Your task to perform on an android device: stop showing notifications on the lock screen Image 0: 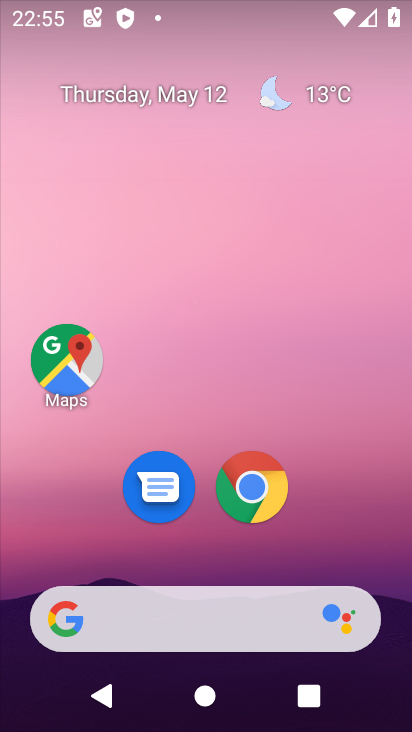
Step 0: drag from (202, 526) to (189, 23)
Your task to perform on an android device: stop showing notifications on the lock screen Image 1: 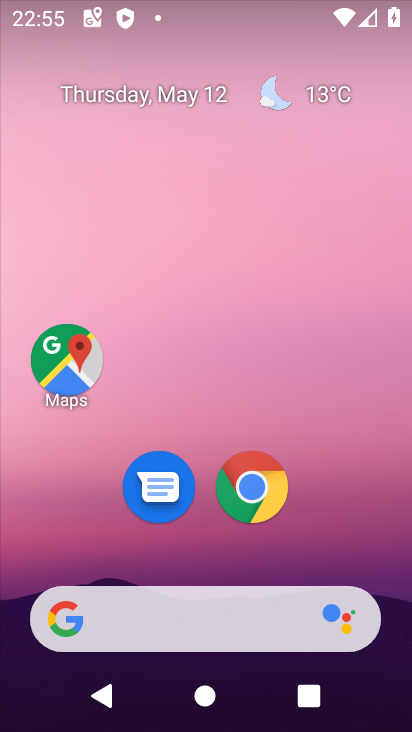
Step 1: drag from (210, 551) to (281, 27)
Your task to perform on an android device: stop showing notifications on the lock screen Image 2: 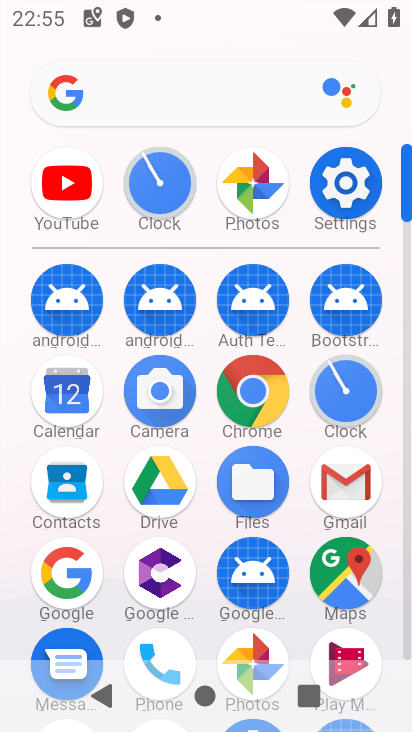
Step 2: click (332, 199)
Your task to perform on an android device: stop showing notifications on the lock screen Image 3: 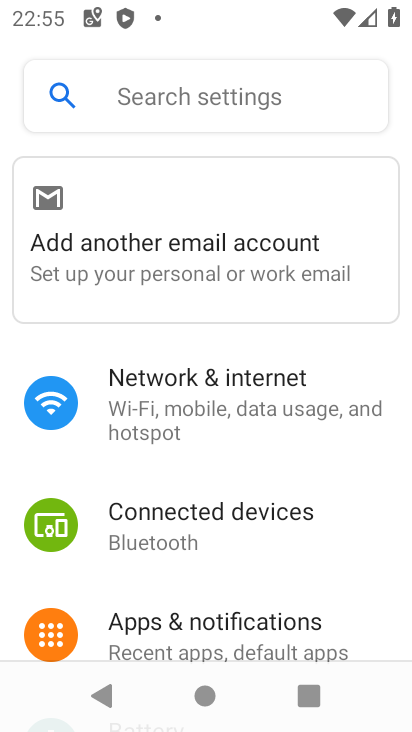
Step 3: click (202, 605)
Your task to perform on an android device: stop showing notifications on the lock screen Image 4: 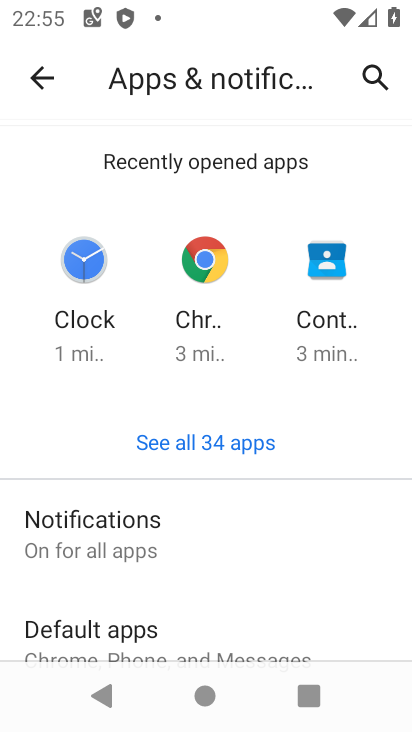
Step 4: drag from (212, 605) to (254, 10)
Your task to perform on an android device: stop showing notifications on the lock screen Image 5: 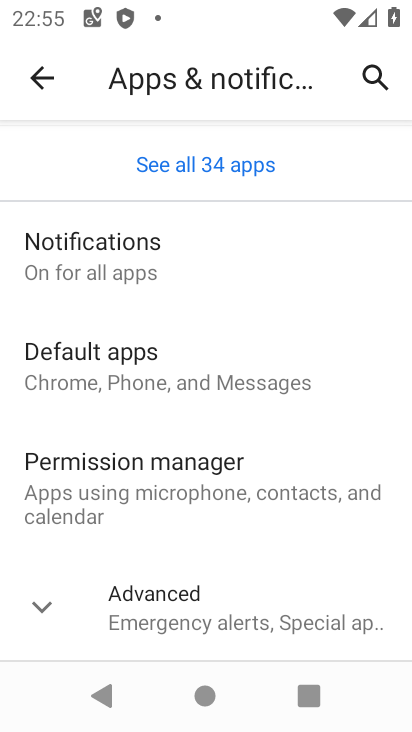
Step 5: click (249, 638)
Your task to perform on an android device: stop showing notifications on the lock screen Image 6: 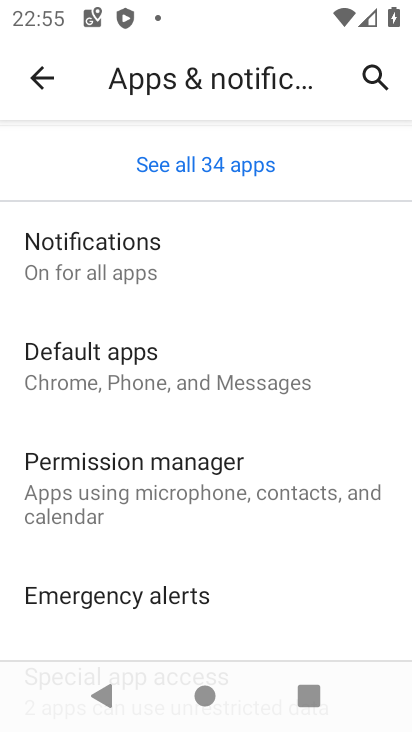
Step 6: drag from (187, 602) to (194, 547)
Your task to perform on an android device: stop showing notifications on the lock screen Image 7: 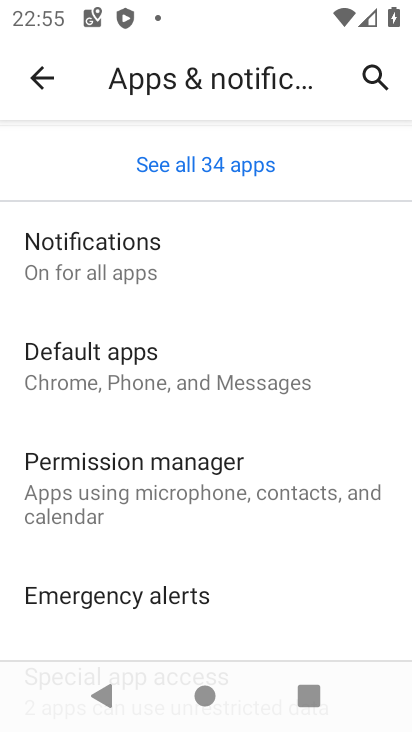
Step 7: click (171, 594)
Your task to perform on an android device: stop showing notifications on the lock screen Image 8: 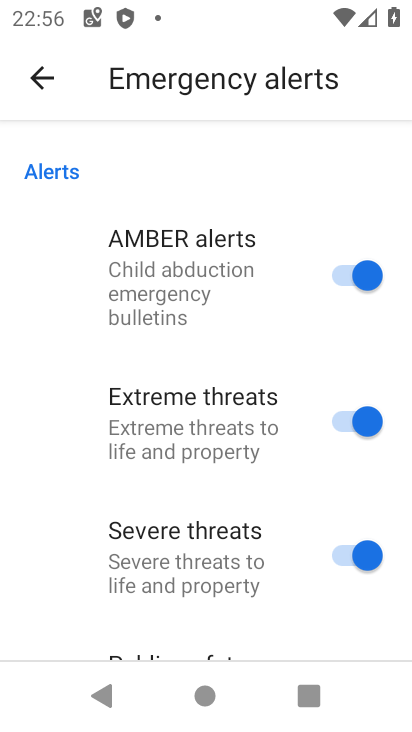
Step 8: drag from (188, 596) to (271, 149)
Your task to perform on an android device: stop showing notifications on the lock screen Image 9: 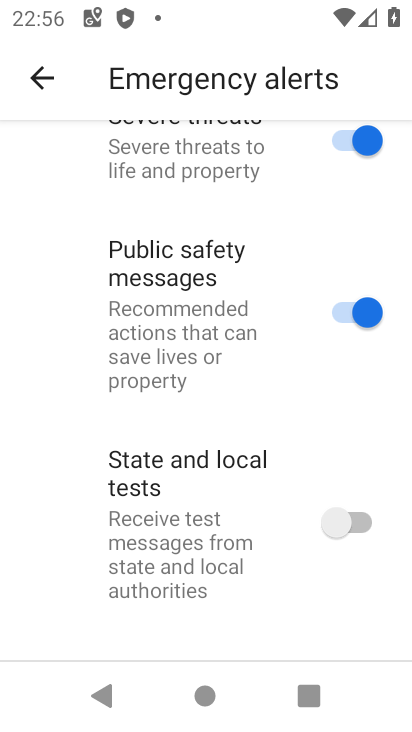
Step 9: drag from (258, 231) to (303, 261)
Your task to perform on an android device: stop showing notifications on the lock screen Image 10: 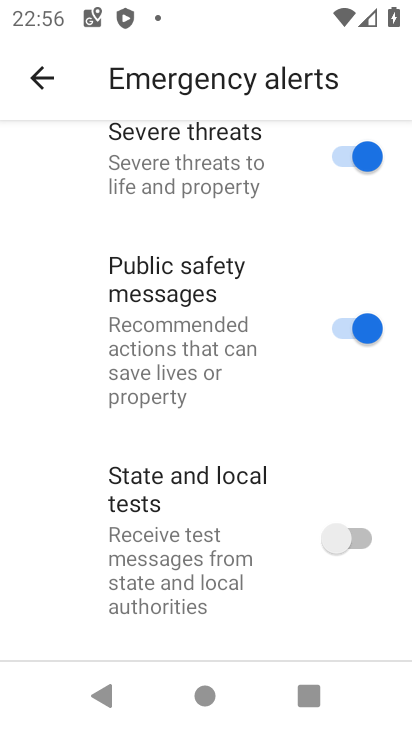
Step 10: drag from (292, 247) to (189, 565)
Your task to perform on an android device: stop showing notifications on the lock screen Image 11: 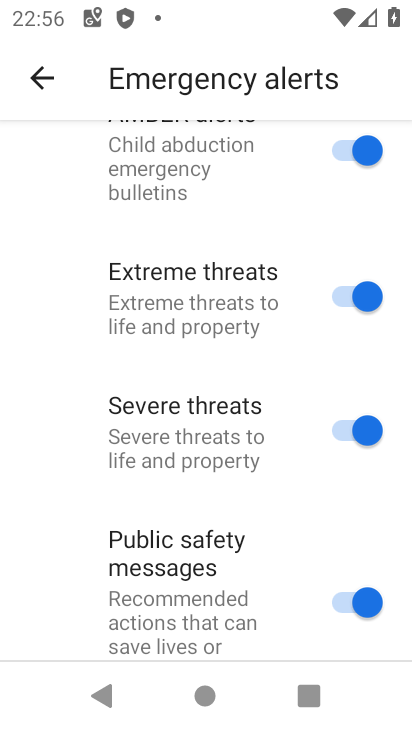
Step 11: click (35, 93)
Your task to perform on an android device: stop showing notifications on the lock screen Image 12: 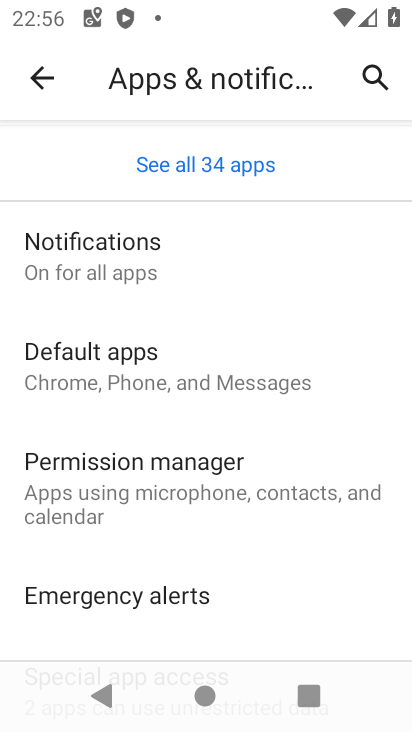
Step 12: click (194, 228)
Your task to perform on an android device: stop showing notifications on the lock screen Image 13: 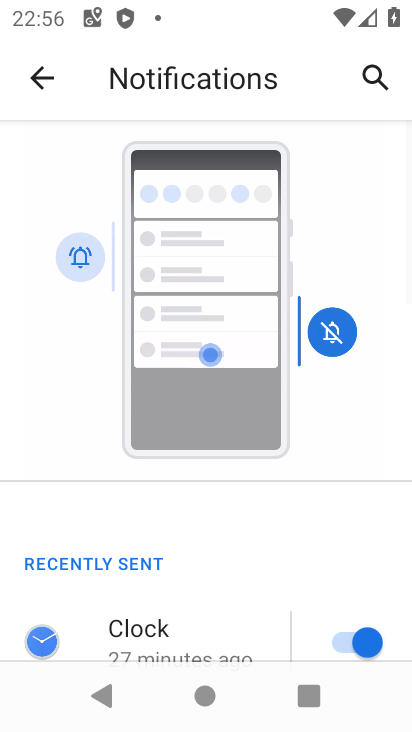
Step 13: drag from (196, 595) to (266, 482)
Your task to perform on an android device: stop showing notifications on the lock screen Image 14: 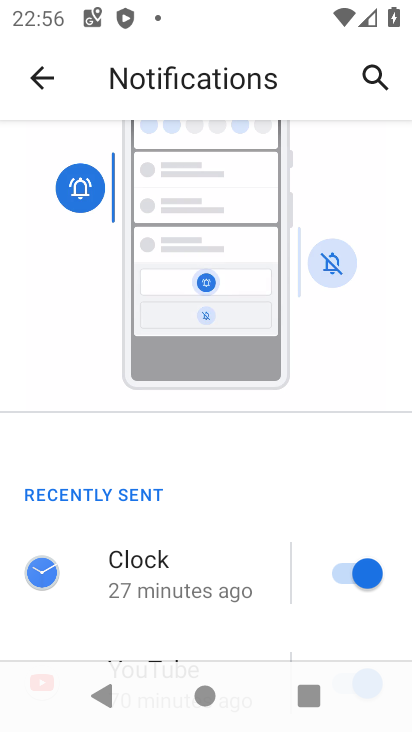
Step 14: drag from (138, 602) to (279, 60)
Your task to perform on an android device: stop showing notifications on the lock screen Image 15: 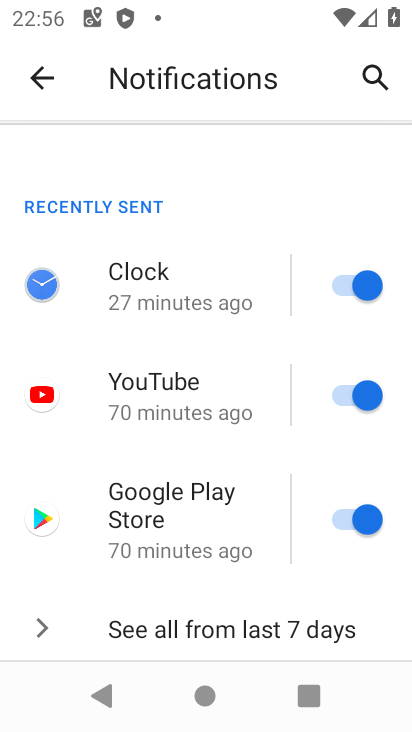
Step 15: drag from (129, 578) to (194, 366)
Your task to perform on an android device: stop showing notifications on the lock screen Image 16: 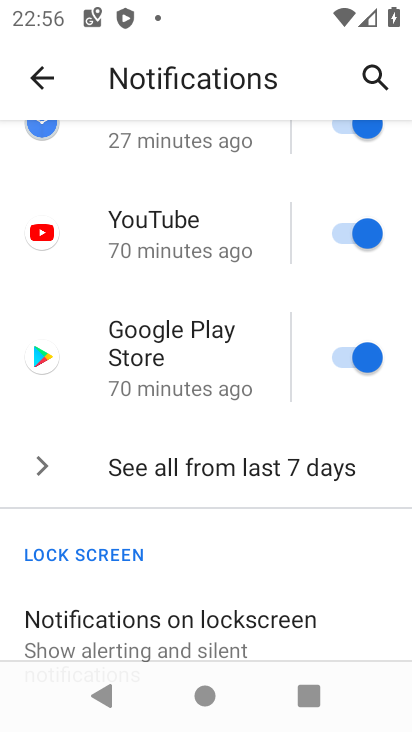
Step 16: click (198, 628)
Your task to perform on an android device: stop showing notifications on the lock screen Image 17: 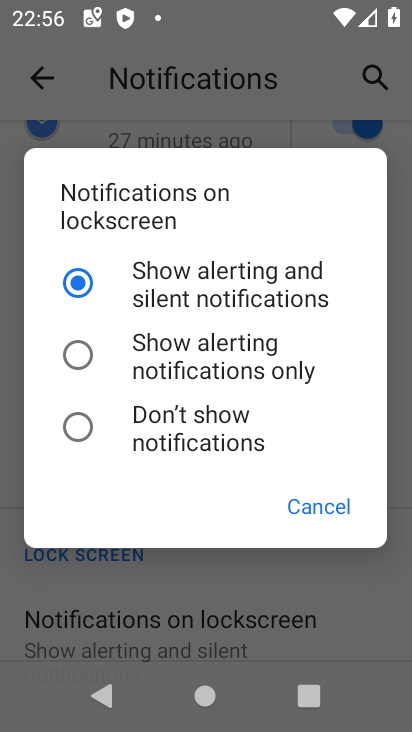
Step 17: click (285, 434)
Your task to perform on an android device: stop showing notifications on the lock screen Image 18: 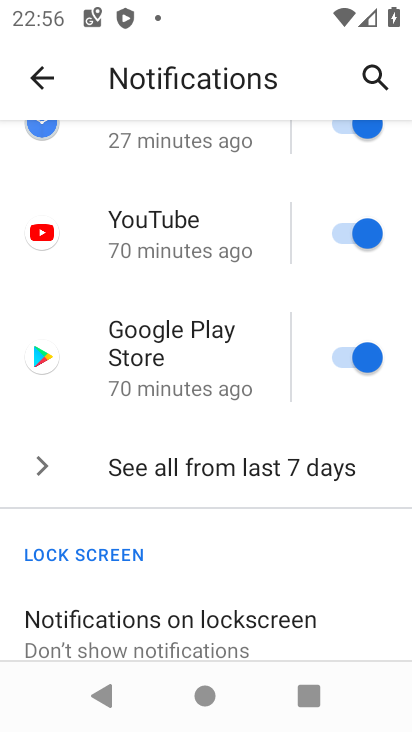
Step 18: task complete